Your task to perform on an android device: find photos in the google photos app Image 0: 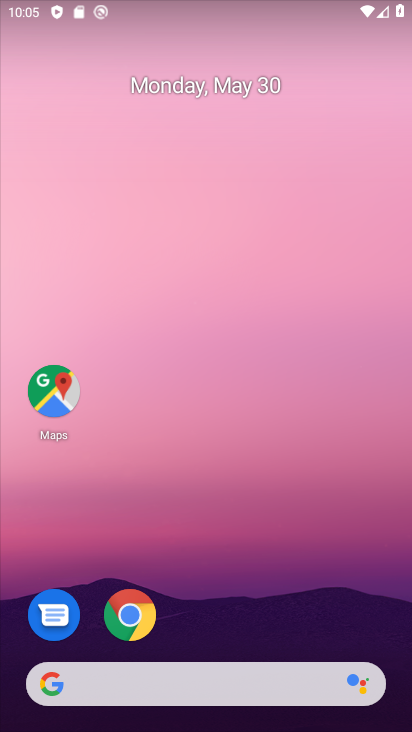
Step 0: drag from (214, 641) to (210, 1)
Your task to perform on an android device: find photos in the google photos app Image 1: 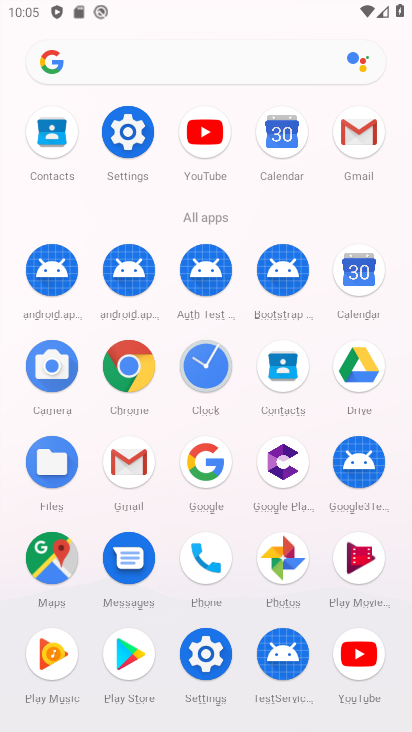
Step 1: click (282, 552)
Your task to perform on an android device: find photos in the google photos app Image 2: 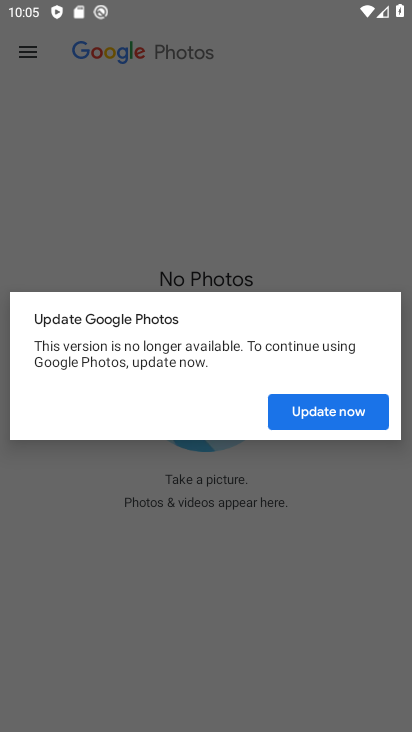
Step 2: task complete